Your task to perform on an android device: Clear all items from cart on bestbuy.com. Search for "jbl flip 4" on bestbuy.com, select the first entry, and add it to the cart. Image 0: 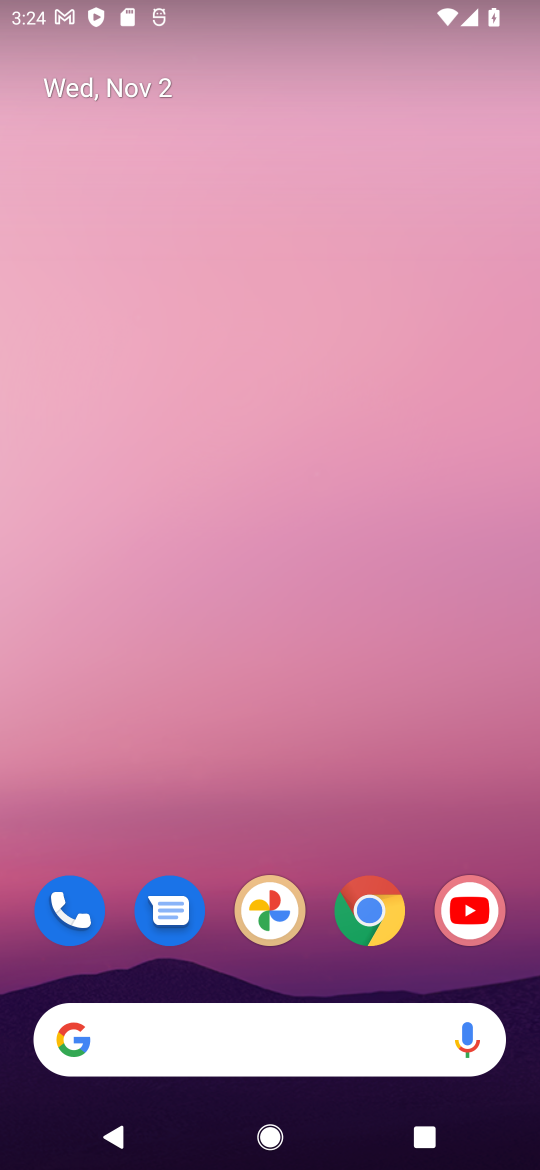
Step 0: click (366, 925)
Your task to perform on an android device: Clear all items from cart on bestbuy.com. Search for "jbl flip 4" on bestbuy.com, select the first entry, and add it to the cart. Image 1: 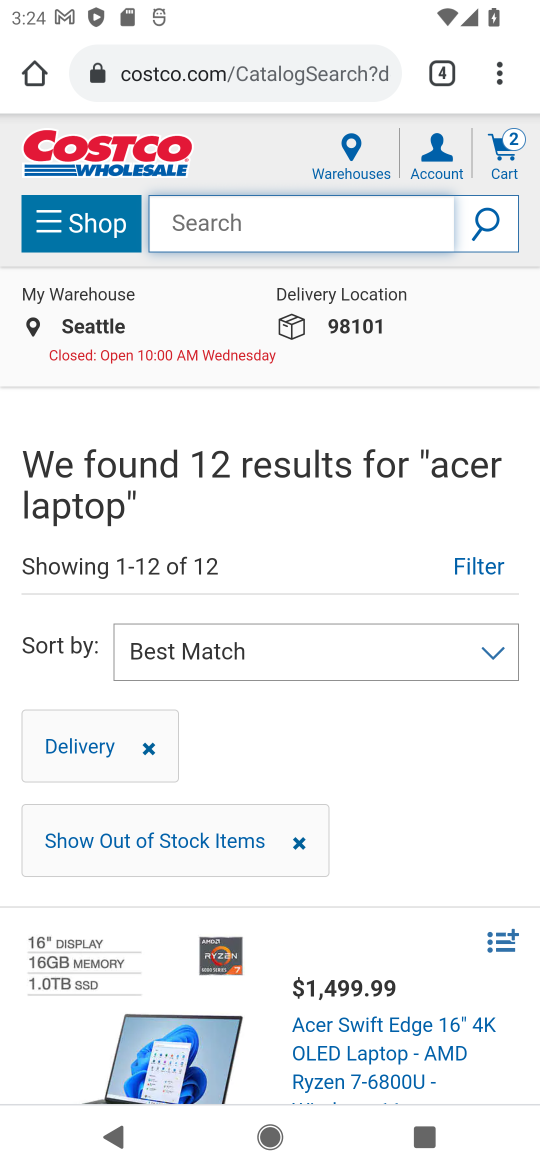
Step 1: click (440, 69)
Your task to perform on an android device: Clear all items from cart on bestbuy.com. Search for "jbl flip 4" on bestbuy.com, select the first entry, and add it to the cart. Image 2: 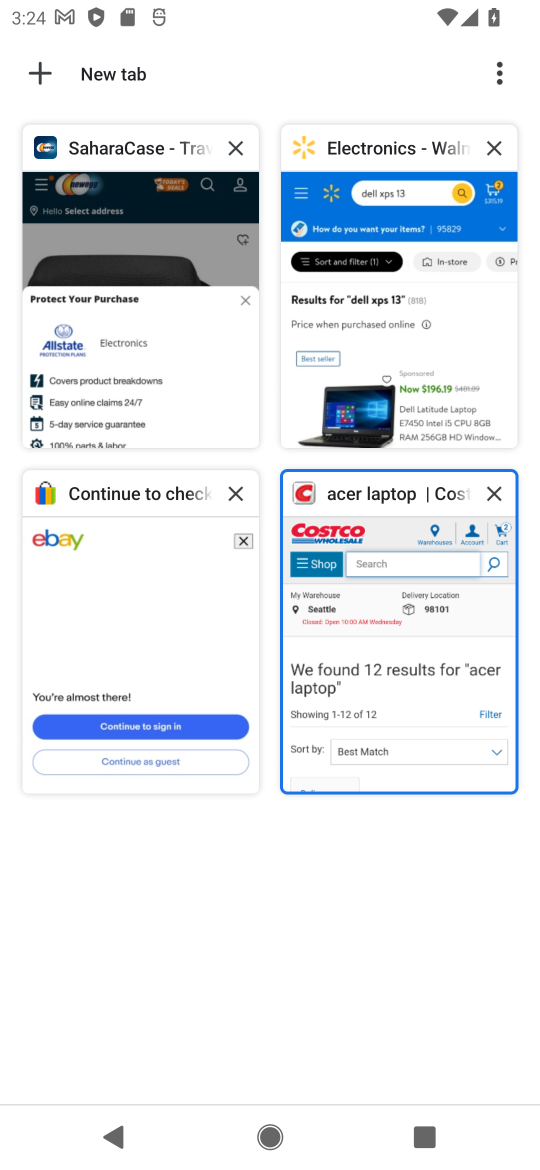
Step 2: click (32, 70)
Your task to perform on an android device: Clear all items from cart on bestbuy.com. Search for "jbl flip 4" on bestbuy.com, select the first entry, and add it to the cart. Image 3: 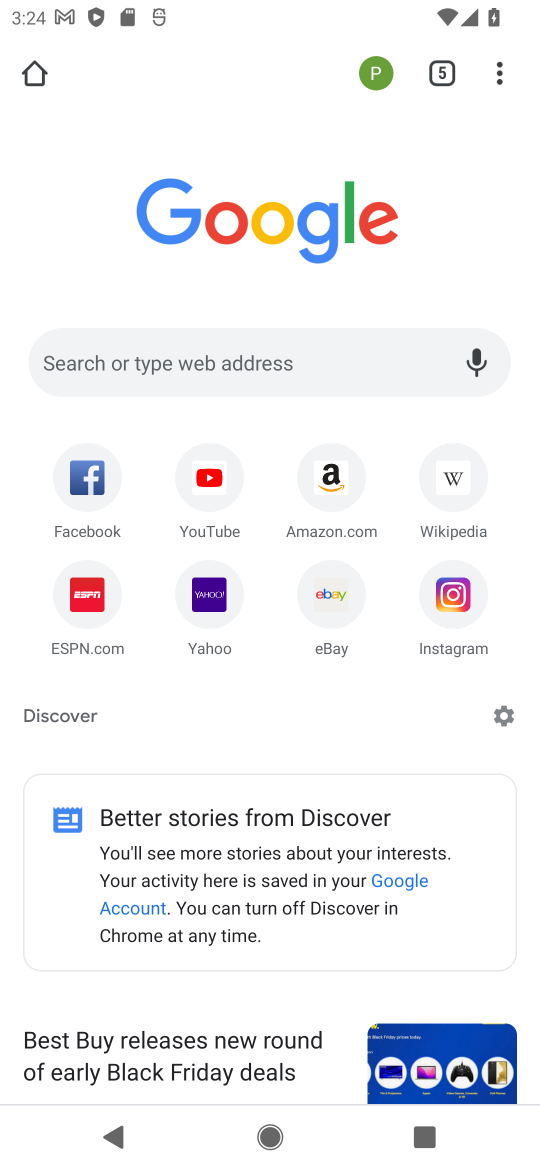
Step 3: click (311, 348)
Your task to perform on an android device: Clear all items from cart on bestbuy.com. Search for "jbl flip 4" on bestbuy.com, select the first entry, and add it to the cart. Image 4: 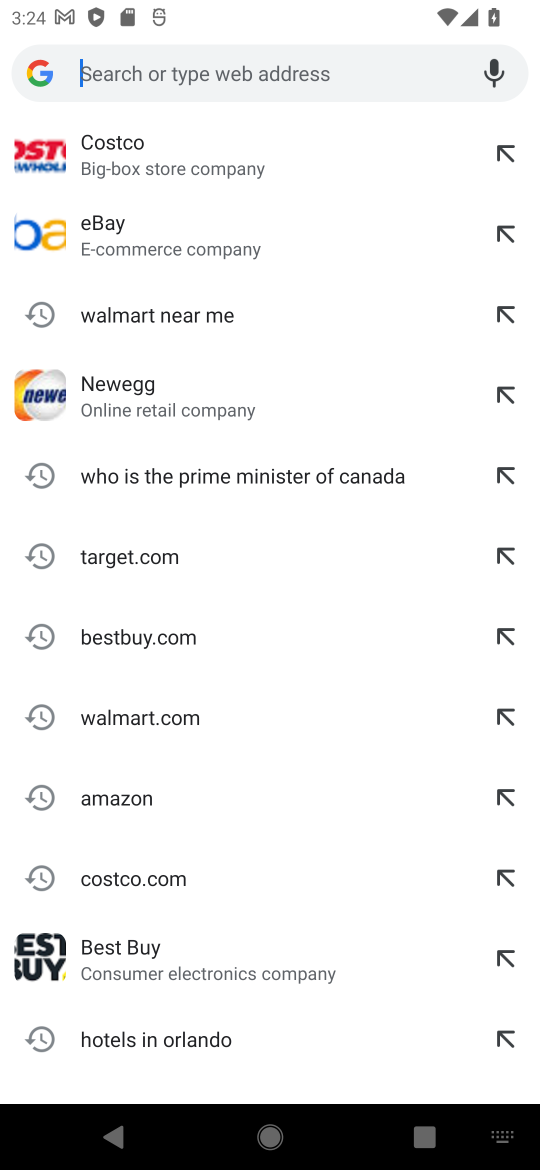
Step 4: type "bestnuy"
Your task to perform on an android device: Clear all items from cart on bestbuy.com. Search for "jbl flip 4" on bestbuy.com, select the first entry, and add it to the cart. Image 5: 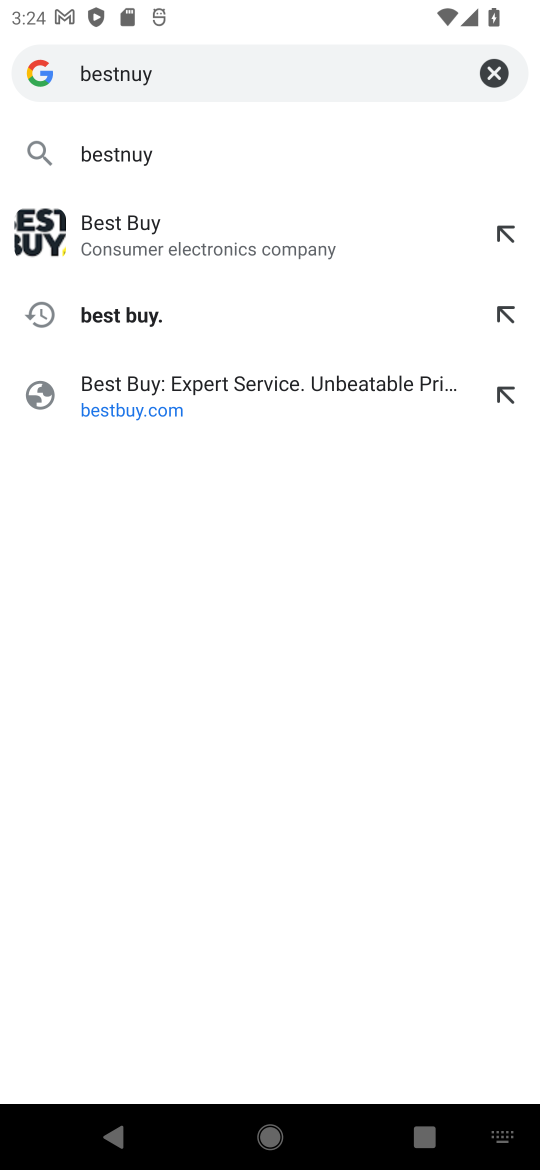
Step 5: click (127, 231)
Your task to perform on an android device: Clear all items from cart on bestbuy.com. Search for "jbl flip 4" on bestbuy.com, select the first entry, and add it to the cart. Image 6: 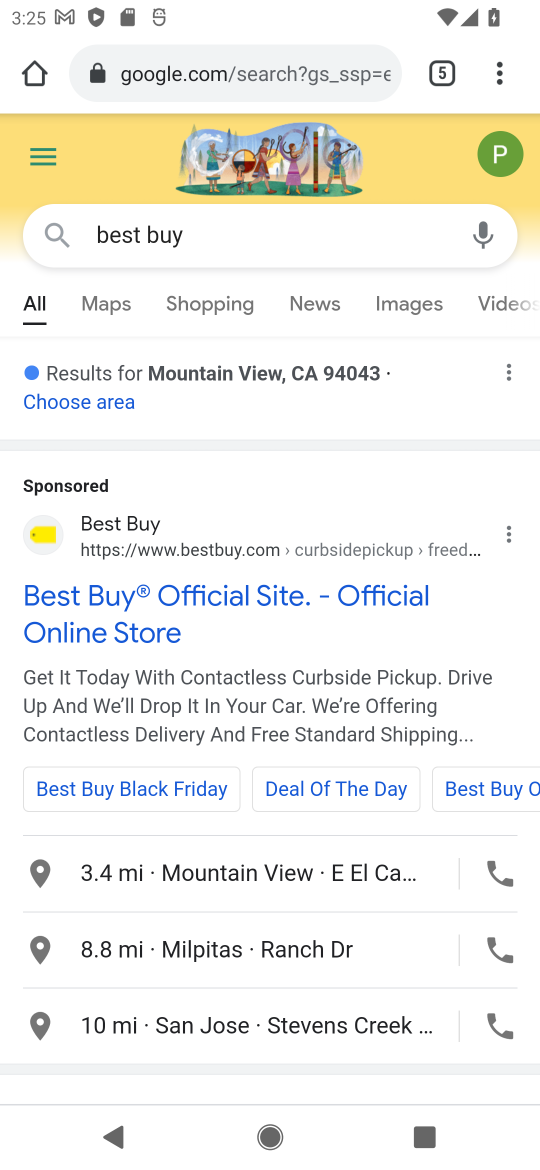
Step 6: drag from (267, 921) to (530, 57)
Your task to perform on an android device: Clear all items from cart on bestbuy.com. Search for "jbl flip 4" on bestbuy.com, select the first entry, and add it to the cart. Image 7: 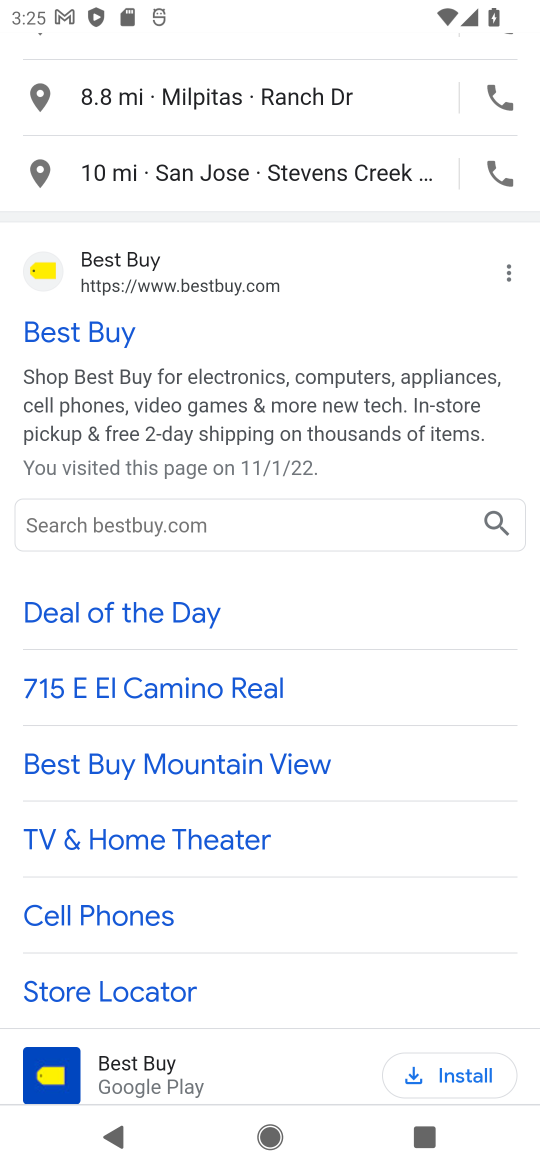
Step 7: click (243, 526)
Your task to perform on an android device: Clear all items from cart on bestbuy.com. Search for "jbl flip 4" on bestbuy.com, select the first entry, and add it to the cart. Image 8: 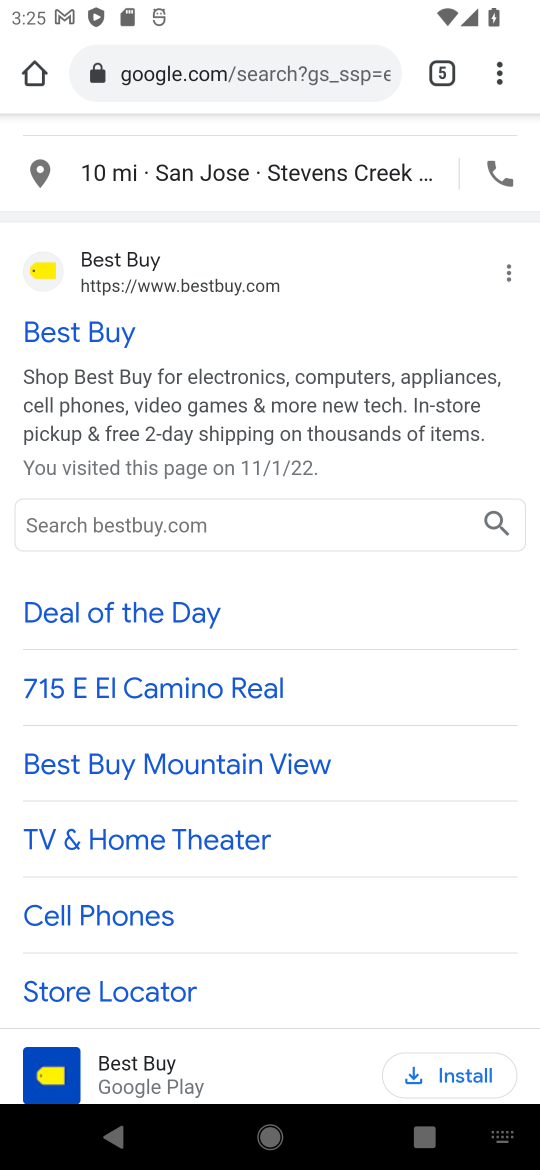
Step 8: type "jbl flip 4"
Your task to perform on an android device: Clear all items from cart on bestbuy.com. Search for "jbl flip 4" on bestbuy.com, select the first entry, and add it to the cart. Image 9: 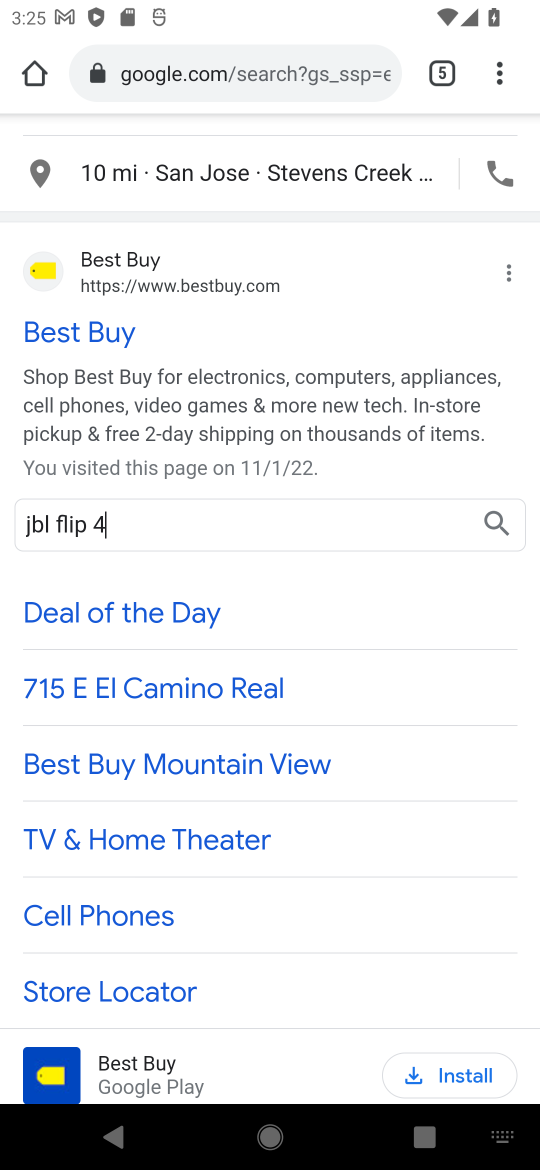
Step 9: click (495, 525)
Your task to perform on an android device: Clear all items from cart on bestbuy.com. Search for "jbl flip 4" on bestbuy.com, select the first entry, and add it to the cart. Image 10: 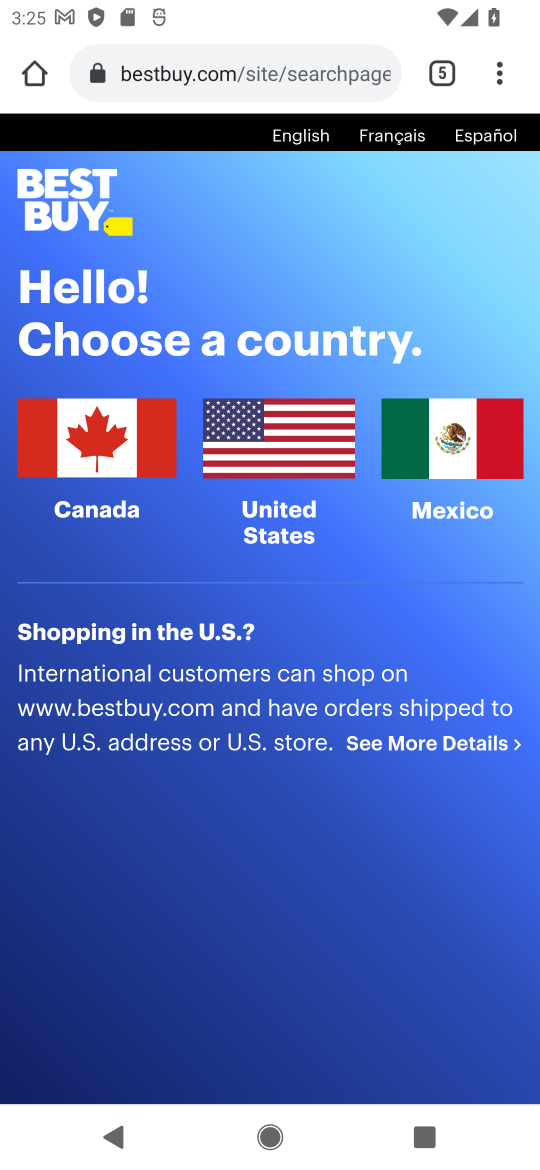
Step 10: click (273, 459)
Your task to perform on an android device: Clear all items from cart on bestbuy.com. Search for "jbl flip 4" on bestbuy.com, select the first entry, and add it to the cart. Image 11: 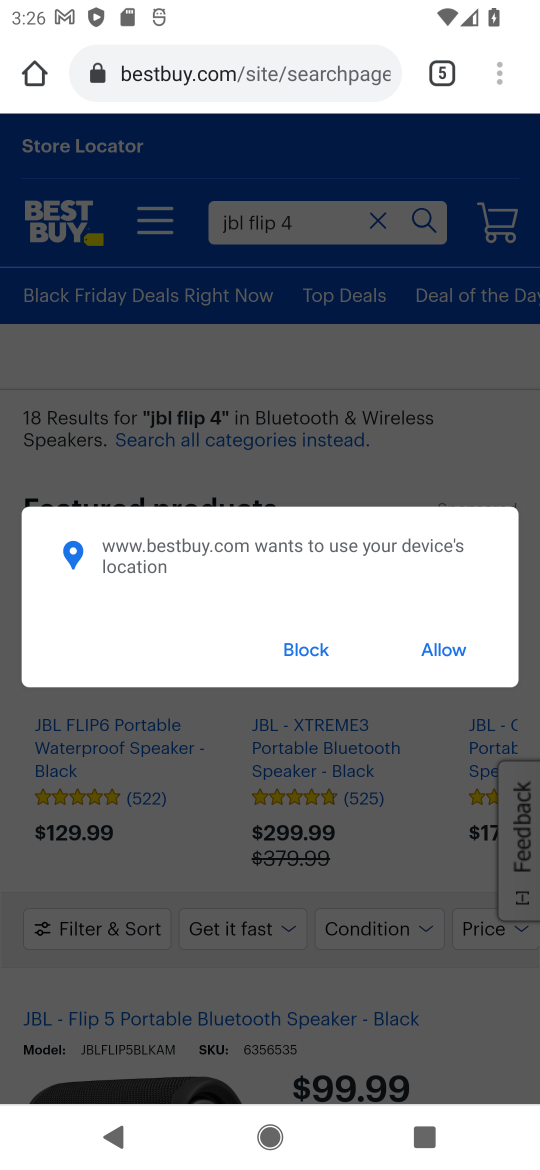
Step 11: click (308, 652)
Your task to perform on an android device: Clear all items from cart on bestbuy.com. Search for "jbl flip 4" on bestbuy.com, select the first entry, and add it to the cart. Image 12: 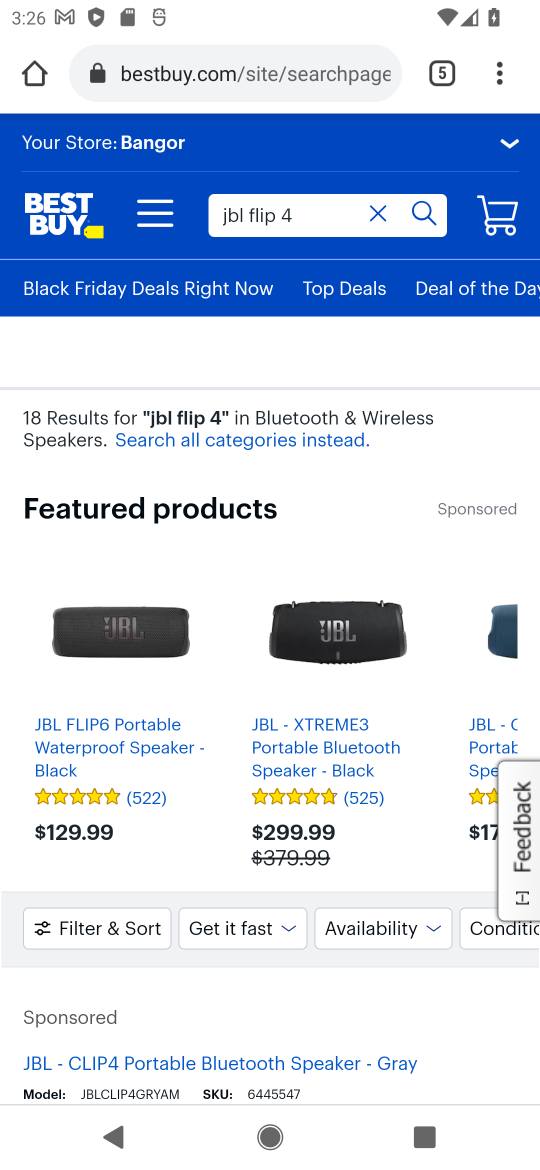
Step 12: drag from (281, 1053) to (282, 11)
Your task to perform on an android device: Clear all items from cart on bestbuy.com. Search for "jbl flip 4" on bestbuy.com, select the first entry, and add it to the cart. Image 13: 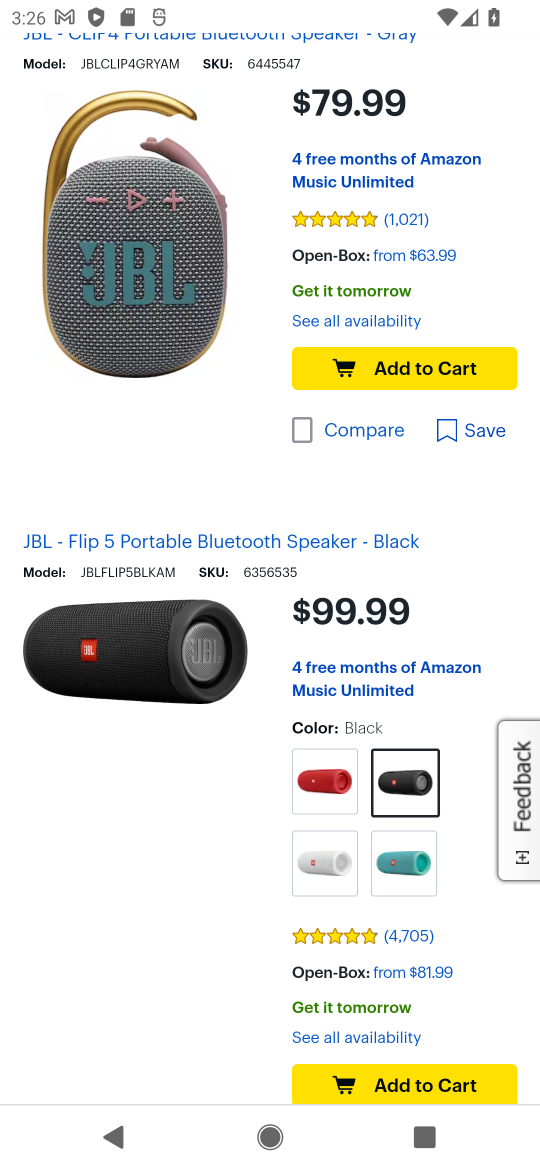
Step 13: click (411, 382)
Your task to perform on an android device: Clear all items from cart on bestbuy.com. Search for "jbl flip 4" on bestbuy.com, select the first entry, and add it to the cart. Image 14: 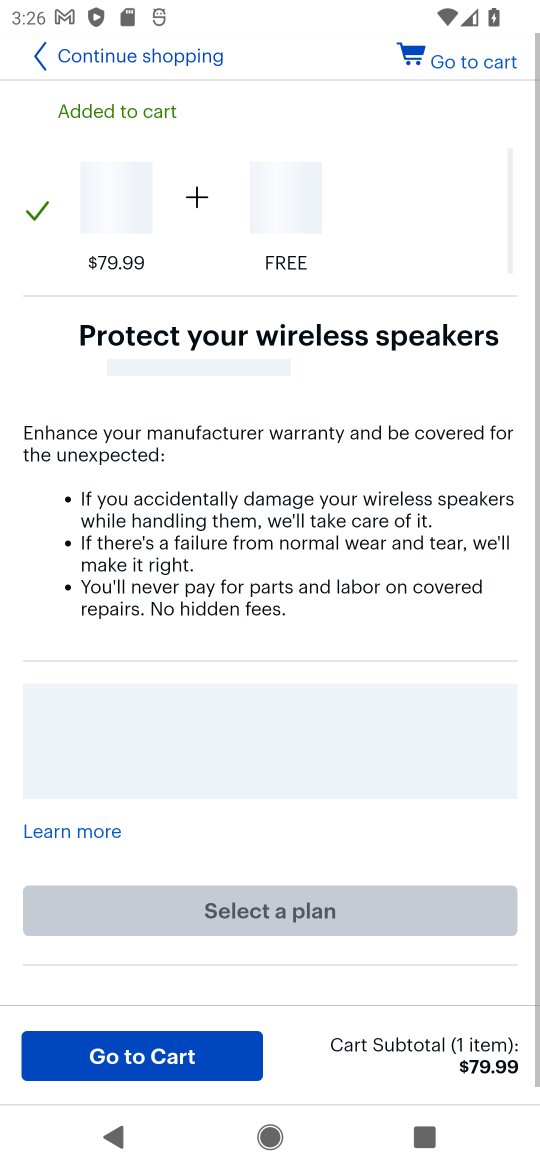
Step 14: task complete